Your task to perform on an android device: turn off location history Image 0: 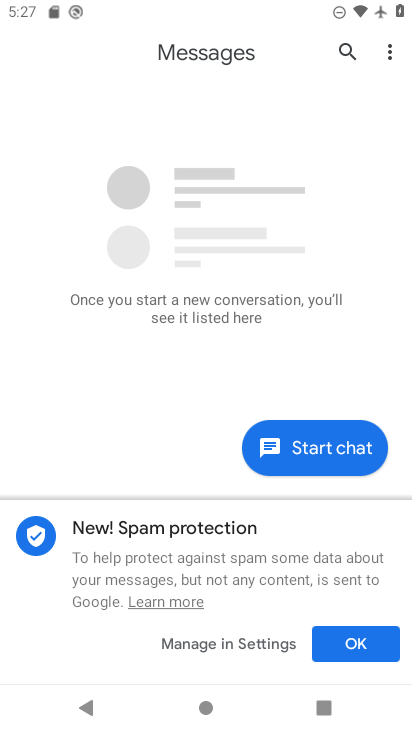
Step 0: press back button
Your task to perform on an android device: turn off location history Image 1: 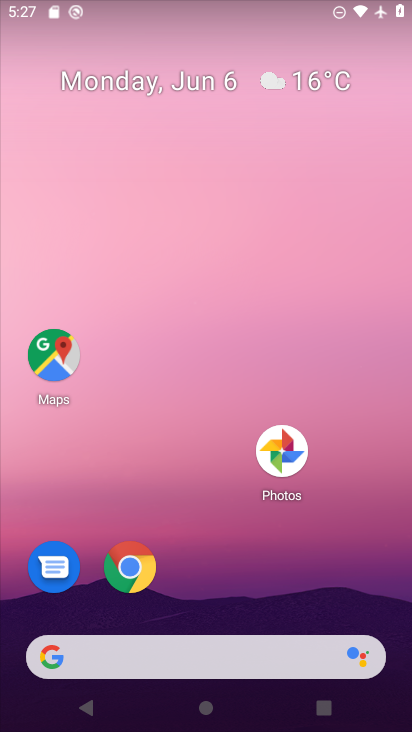
Step 1: drag from (239, 665) to (188, 237)
Your task to perform on an android device: turn off location history Image 2: 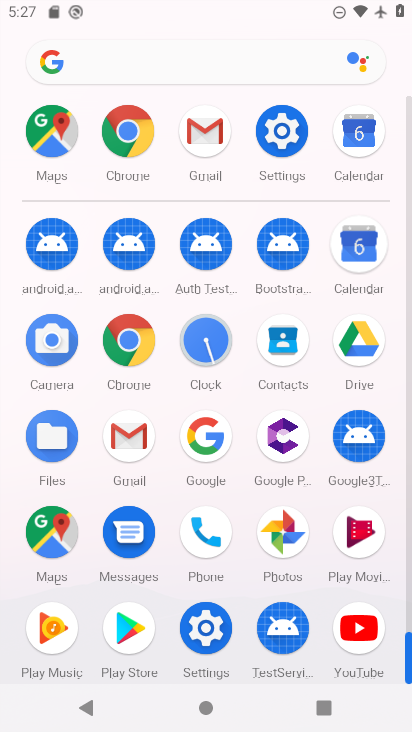
Step 2: click (282, 162)
Your task to perform on an android device: turn off location history Image 3: 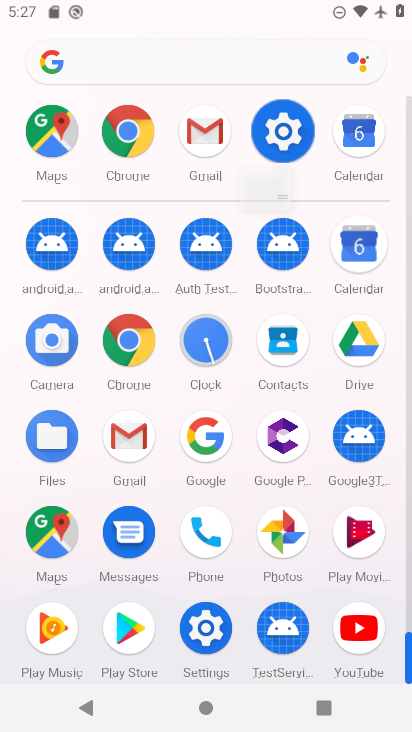
Step 3: click (282, 138)
Your task to perform on an android device: turn off location history Image 4: 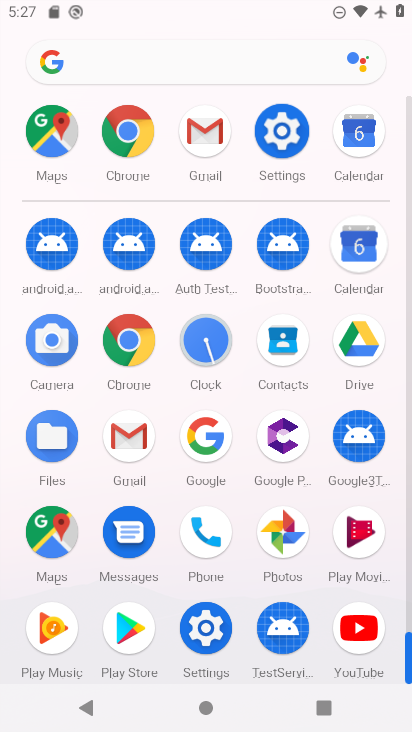
Step 4: click (283, 137)
Your task to perform on an android device: turn off location history Image 5: 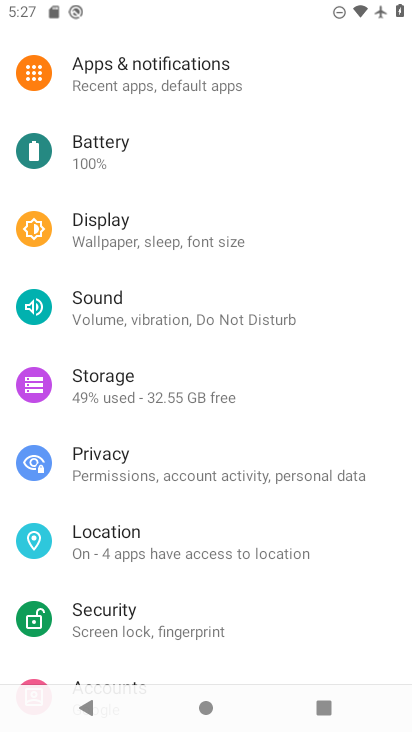
Step 5: click (284, 148)
Your task to perform on an android device: turn off location history Image 6: 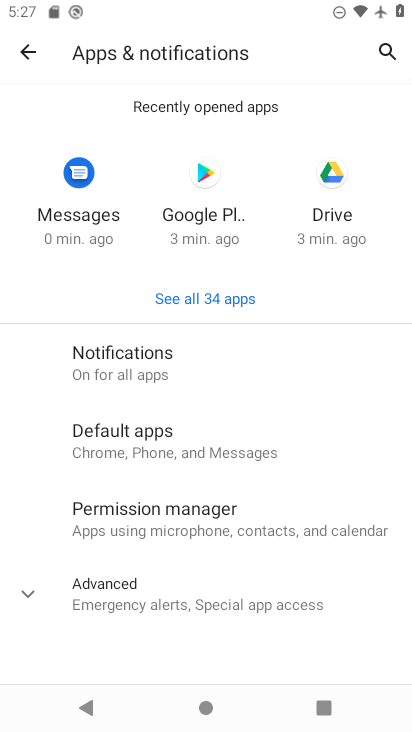
Step 6: click (128, 588)
Your task to perform on an android device: turn off location history Image 7: 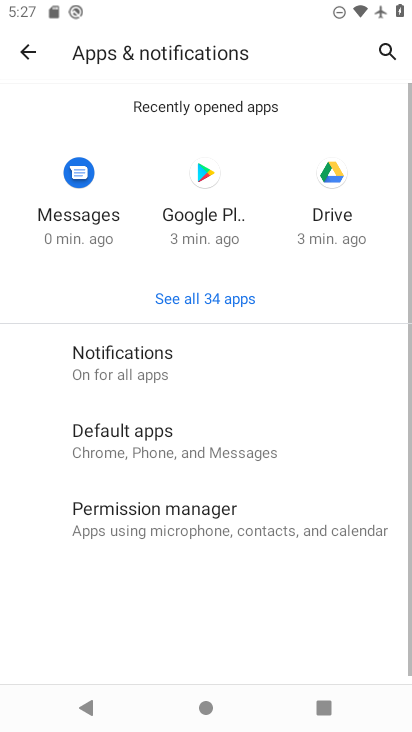
Step 7: click (128, 588)
Your task to perform on an android device: turn off location history Image 8: 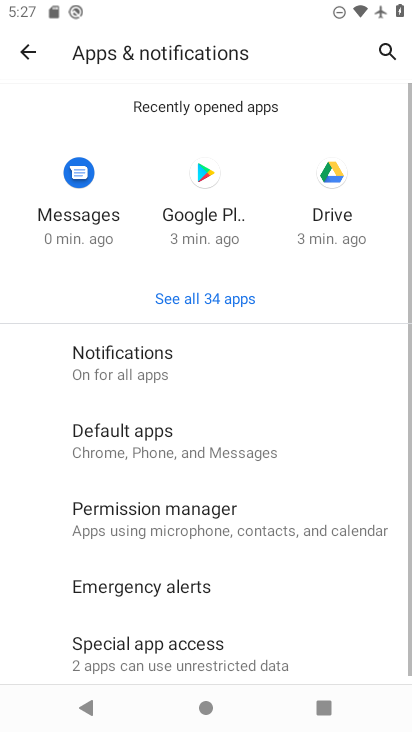
Step 8: click (127, 589)
Your task to perform on an android device: turn off location history Image 9: 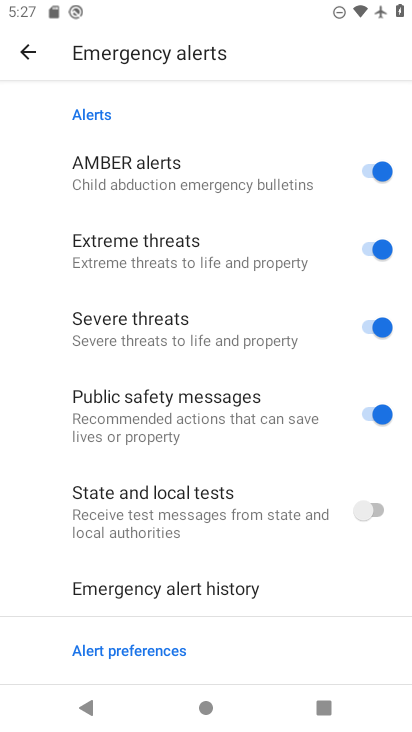
Step 9: click (22, 75)
Your task to perform on an android device: turn off location history Image 10: 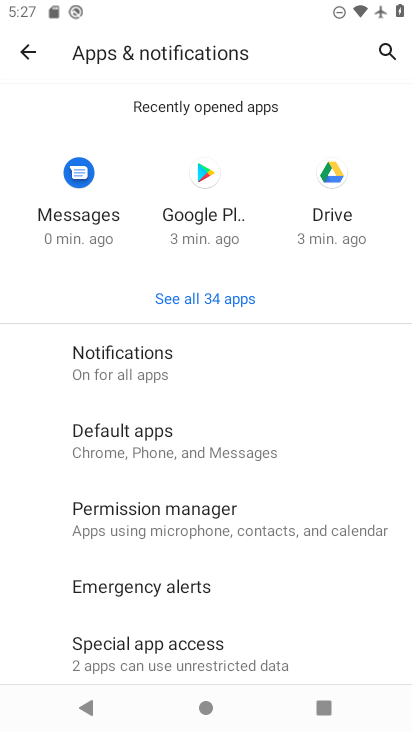
Step 10: drag from (230, 438) to (231, 315)
Your task to perform on an android device: turn off location history Image 11: 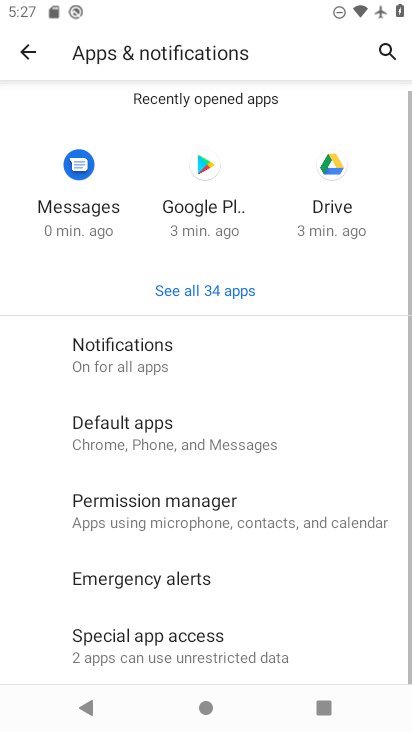
Step 11: drag from (229, 510) to (150, 199)
Your task to perform on an android device: turn off location history Image 12: 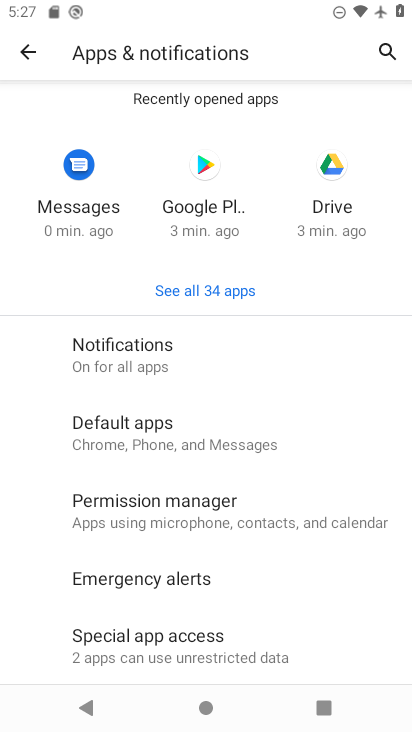
Step 12: drag from (175, 434) to (93, 113)
Your task to perform on an android device: turn off location history Image 13: 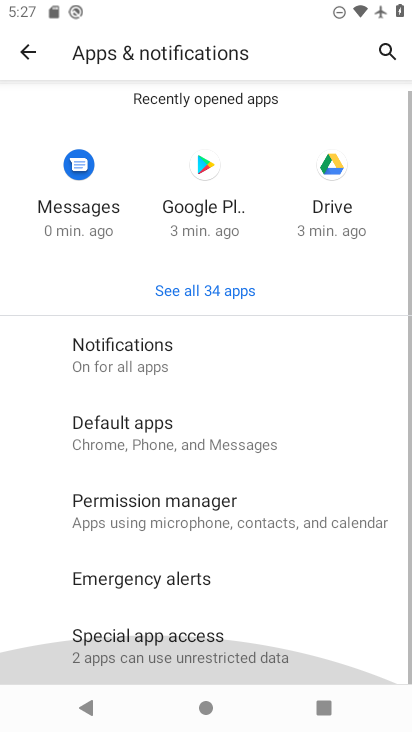
Step 13: drag from (206, 563) to (129, 167)
Your task to perform on an android device: turn off location history Image 14: 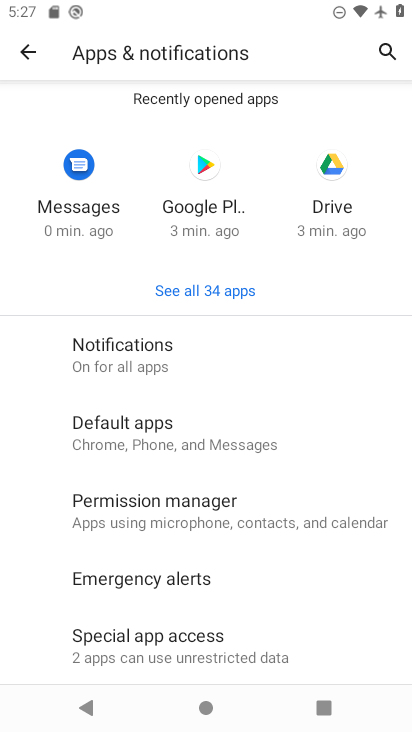
Step 14: drag from (190, 557) to (126, 247)
Your task to perform on an android device: turn off location history Image 15: 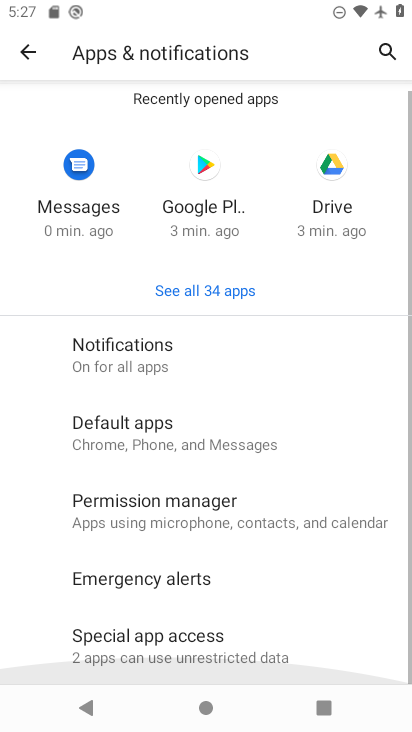
Step 15: click (119, 360)
Your task to perform on an android device: turn off location history Image 16: 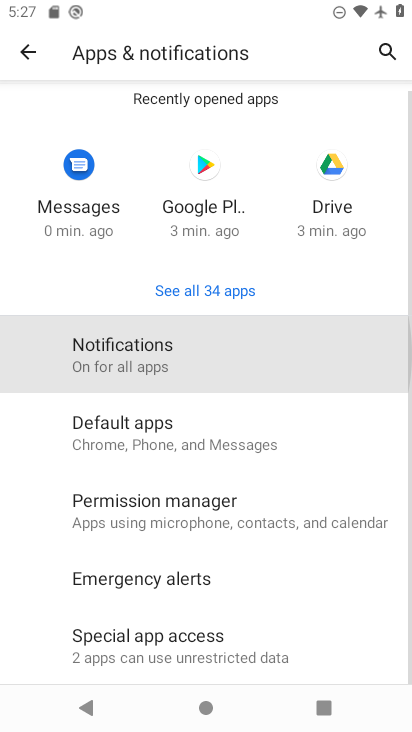
Step 16: click (118, 360)
Your task to perform on an android device: turn off location history Image 17: 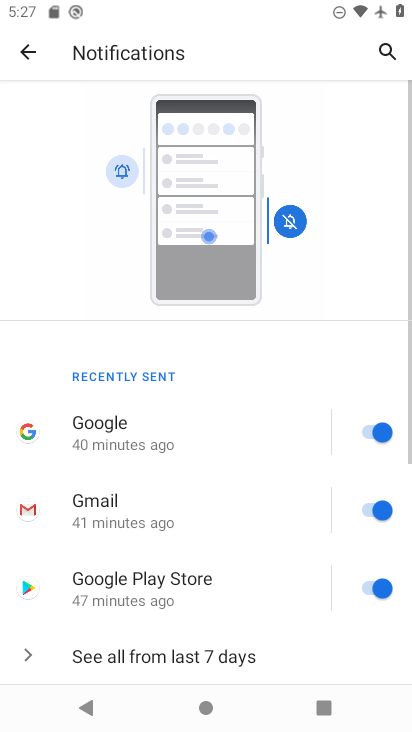
Step 17: drag from (193, 543) to (176, 289)
Your task to perform on an android device: turn off location history Image 18: 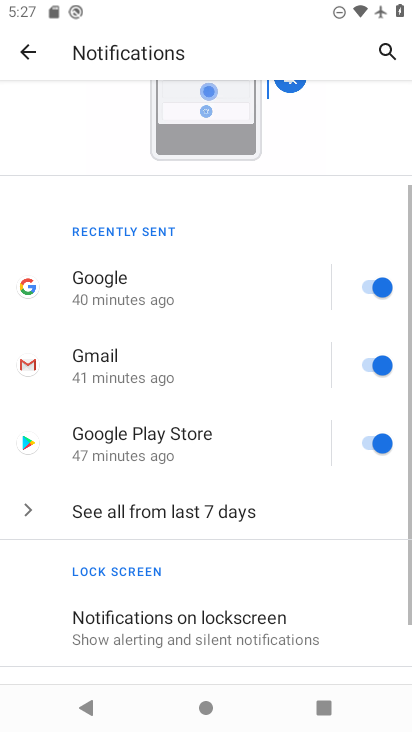
Step 18: drag from (219, 576) to (164, 173)
Your task to perform on an android device: turn off location history Image 19: 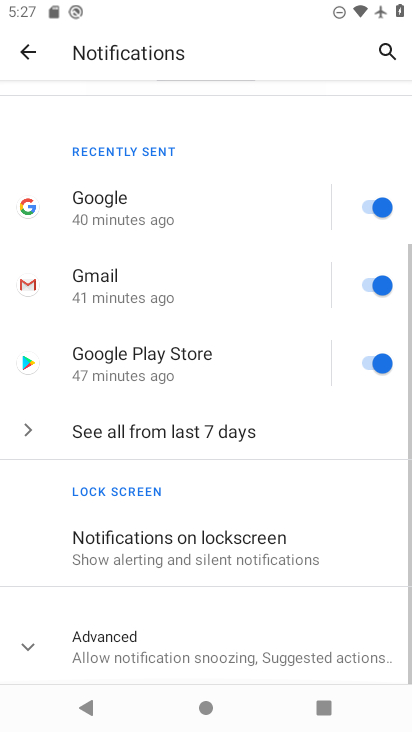
Step 19: drag from (172, 568) to (148, 183)
Your task to perform on an android device: turn off location history Image 20: 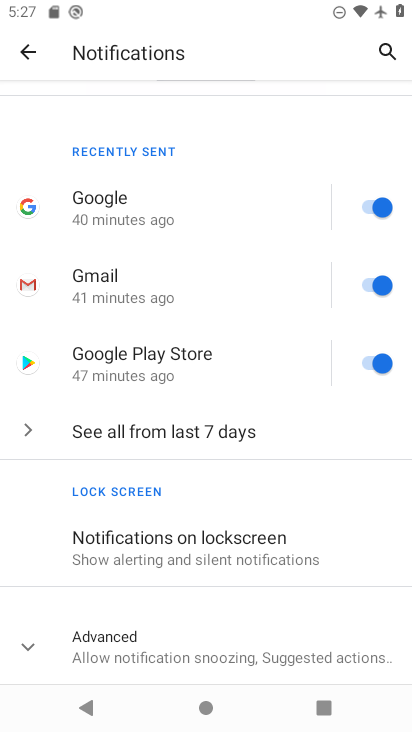
Step 20: click (206, 271)
Your task to perform on an android device: turn off location history Image 21: 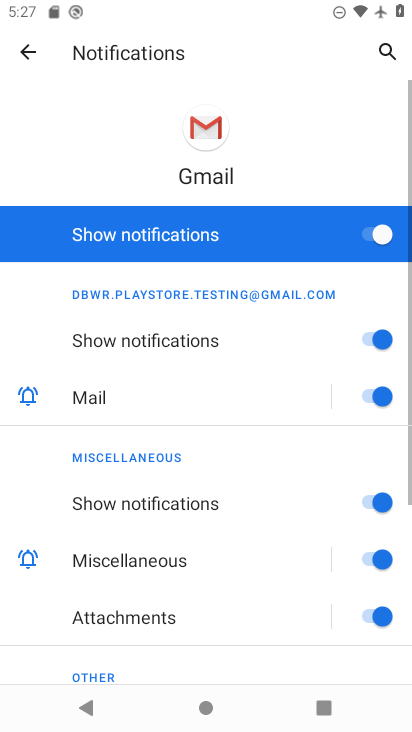
Step 21: click (116, 648)
Your task to perform on an android device: turn off location history Image 22: 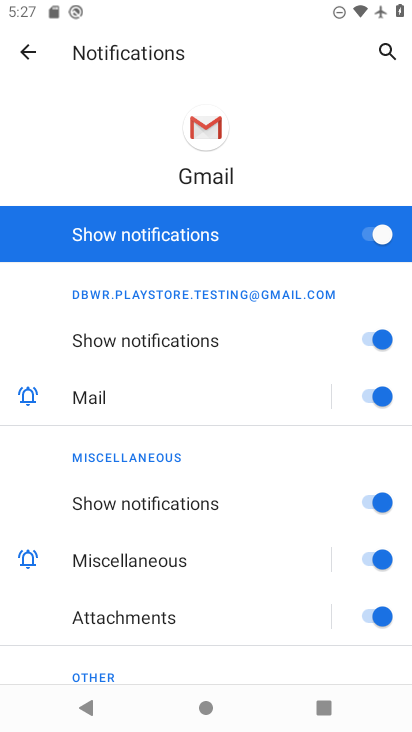
Step 22: drag from (202, 557) to (125, 106)
Your task to perform on an android device: turn off location history Image 23: 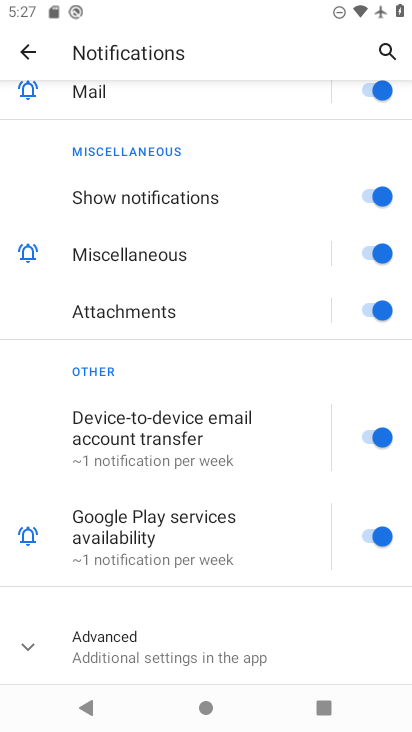
Step 23: click (29, 54)
Your task to perform on an android device: turn off location history Image 24: 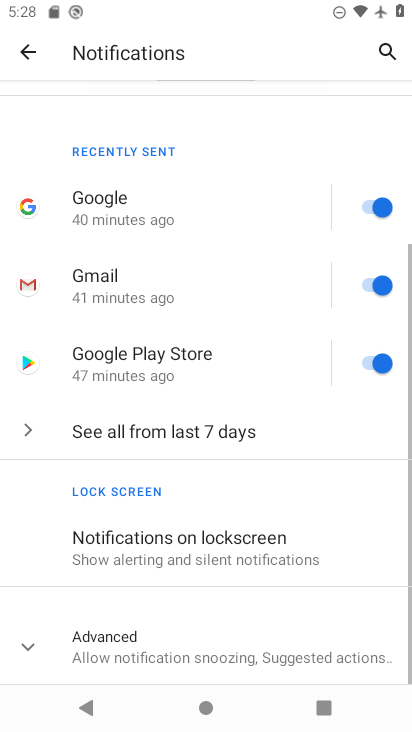
Step 24: drag from (178, 550) to (158, 17)
Your task to perform on an android device: turn off location history Image 25: 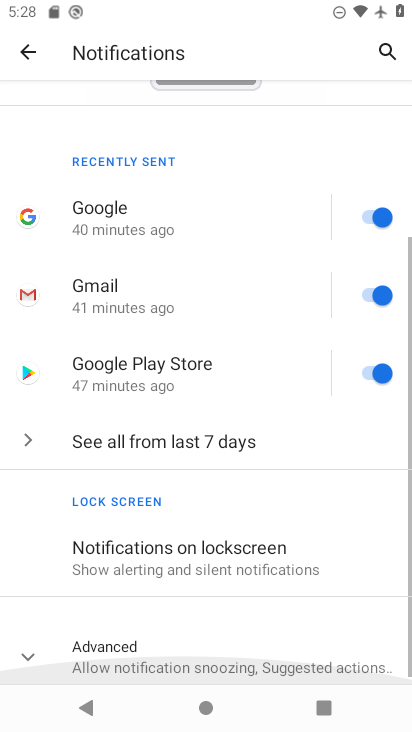
Step 25: drag from (179, 637) to (195, 201)
Your task to perform on an android device: turn off location history Image 26: 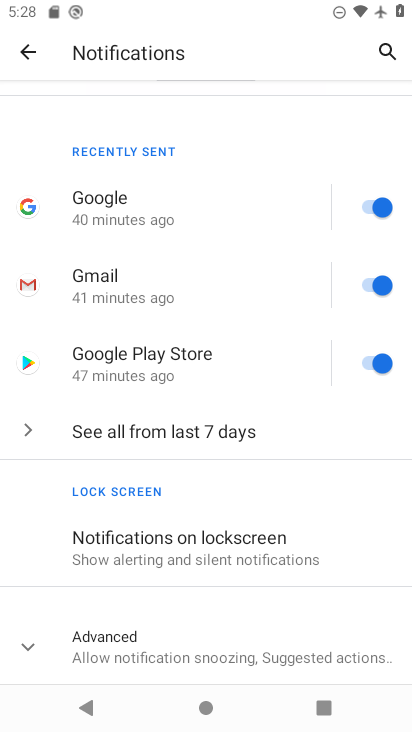
Step 26: click (132, 651)
Your task to perform on an android device: turn off location history Image 27: 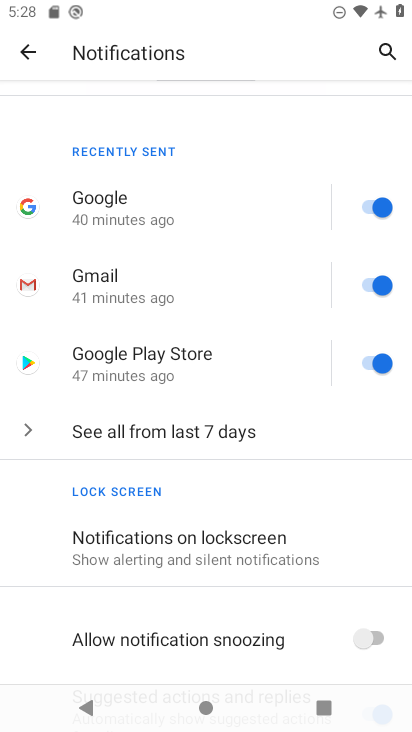
Step 27: drag from (250, 606) to (167, 185)
Your task to perform on an android device: turn off location history Image 28: 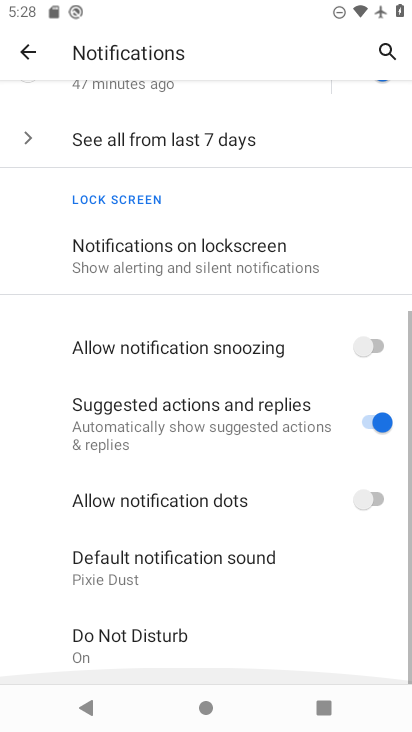
Step 28: drag from (192, 432) to (210, 230)
Your task to perform on an android device: turn off location history Image 29: 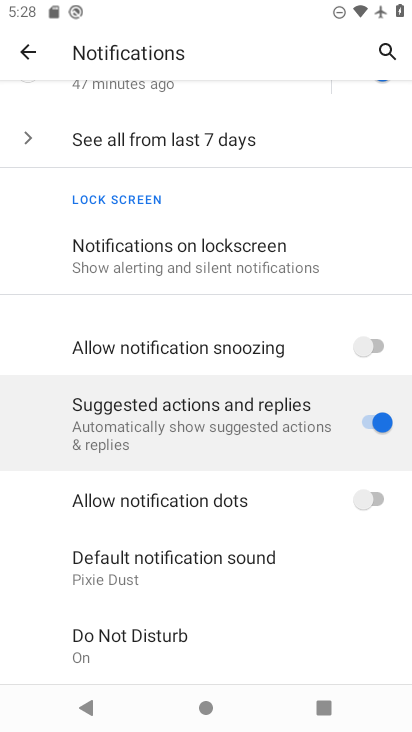
Step 29: drag from (215, 507) to (189, 271)
Your task to perform on an android device: turn off location history Image 30: 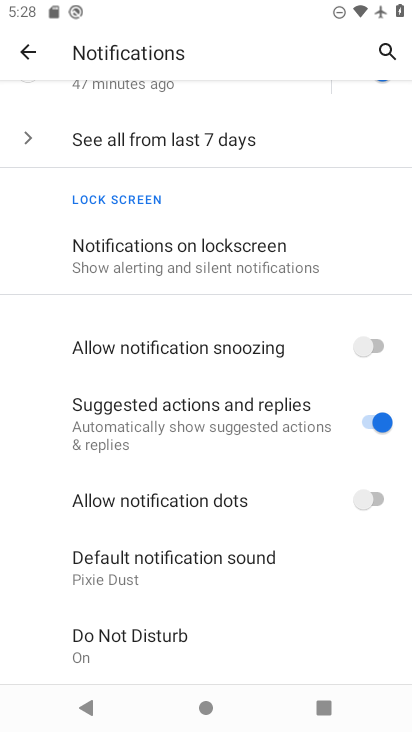
Step 30: drag from (112, 159) to (164, 557)
Your task to perform on an android device: turn off location history Image 31: 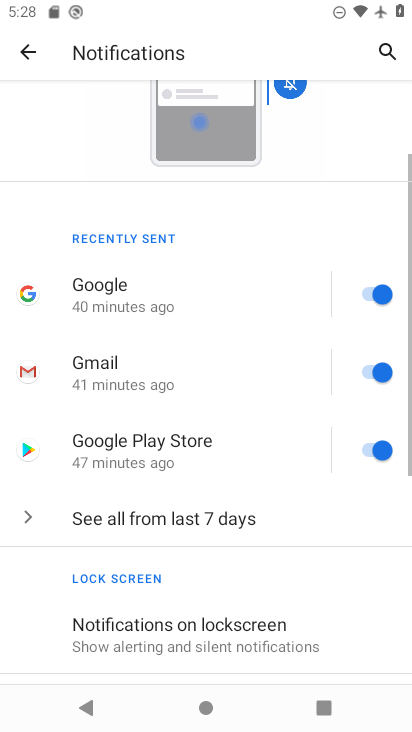
Step 31: drag from (124, 254) to (158, 722)
Your task to perform on an android device: turn off location history Image 32: 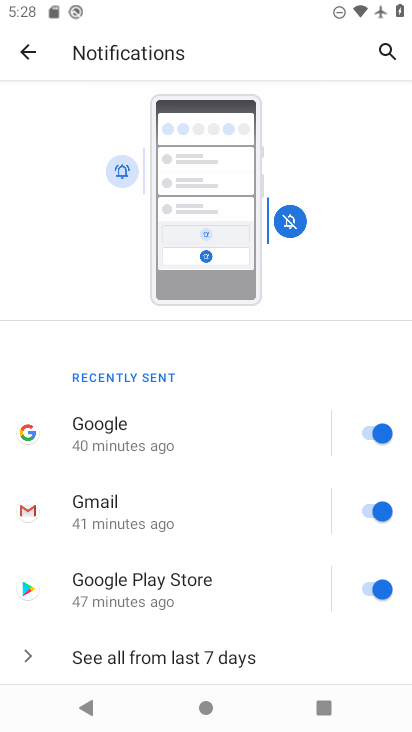
Step 32: click (25, 48)
Your task to perform on an android device: turn off location history Image 33: 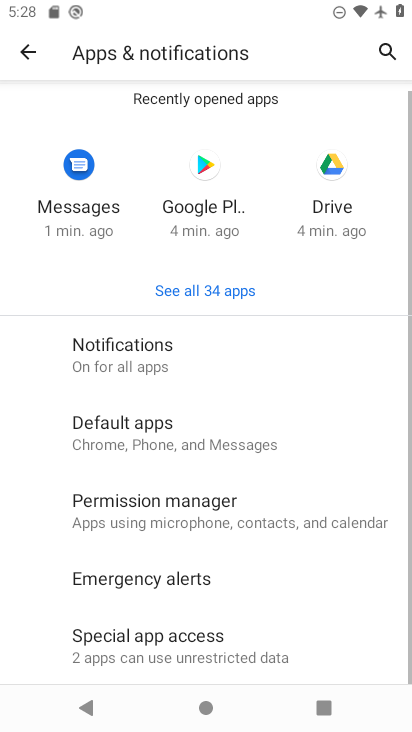
Step 33: click (116, 352)
Your task to perform on an android device: turn off location history Image 34: 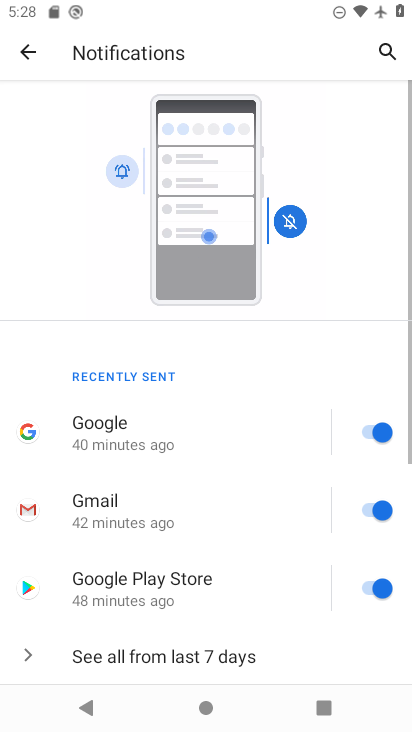
Step 34: click (20, 52)
Your task to perform on an android device: turn off location history Image 35: 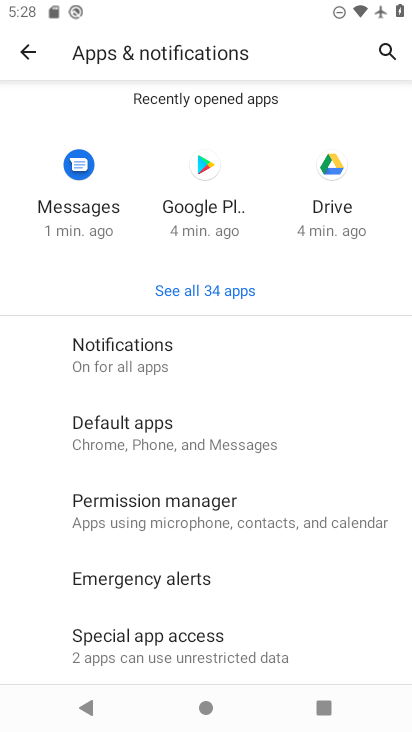
Step 35: click (21, 47)
Your task to perform on an android device: turn off location history Image 36: 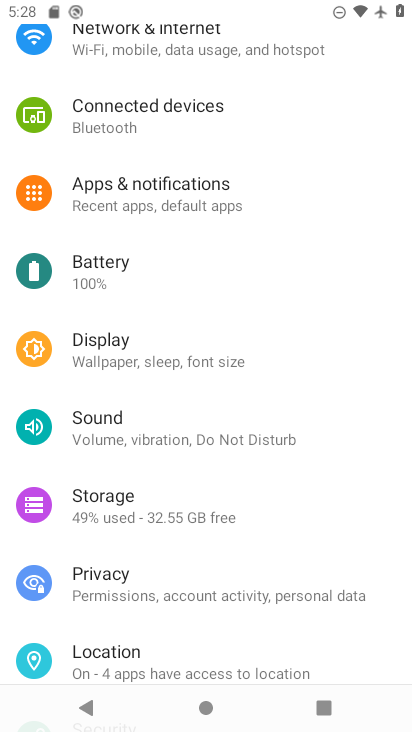
Step 36: click (117, 657)
Your task to perform on an android device: turn off location history Image 37: 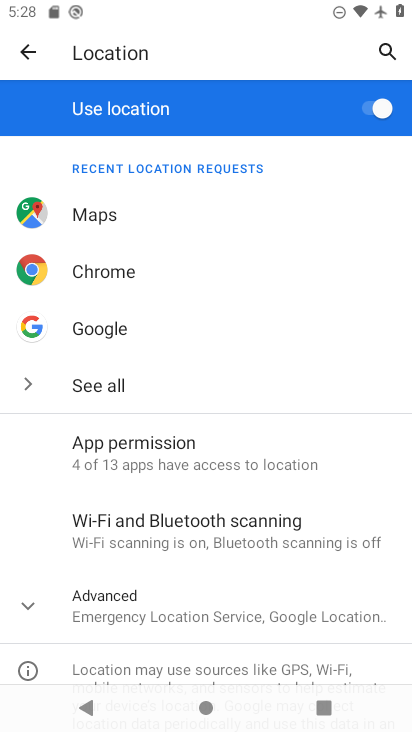
Step 37: drag from (297, 640) to (280, 273)
Your task to perform on an android device: turn off location history Image 38: 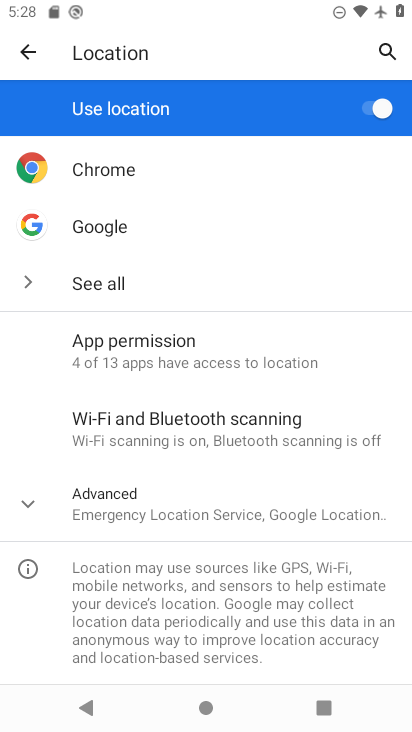
Step 38: click (115, 519)
Your task to perform on an android device: turn off location history Image 39: 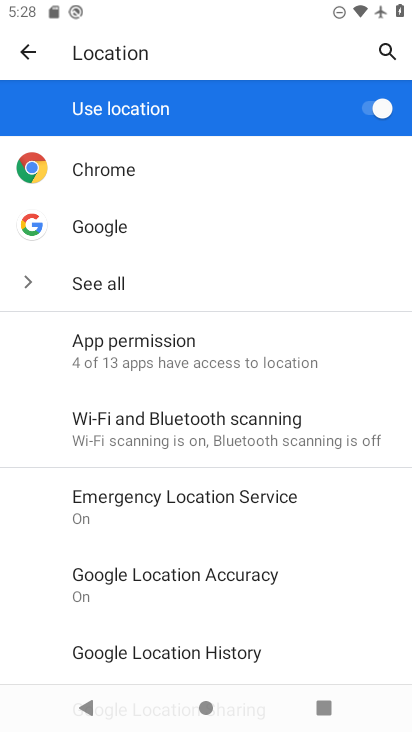
Step 39: click (189, 610)
Your task to perform on an android device: turn off location history Image 40: 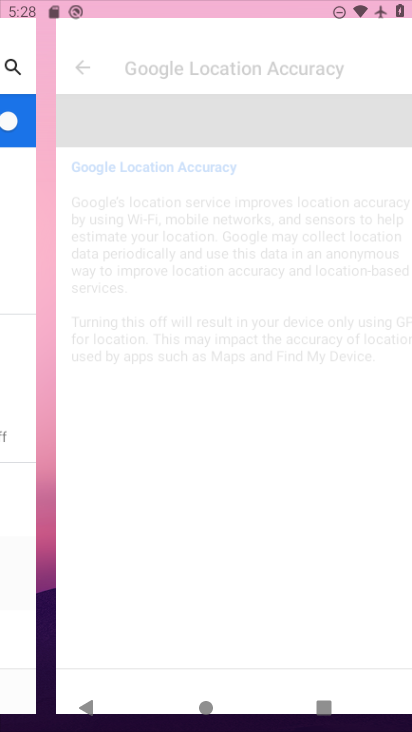
Step 40: click (160, 650)
Your task to perform on an android device: turn off location history Image 41: 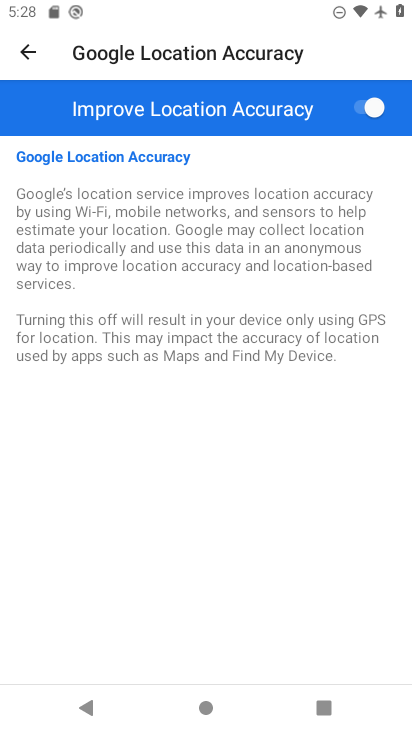
Step 41: click (160, 650)
Your task to perform on an android device: turn off location history Image 42: 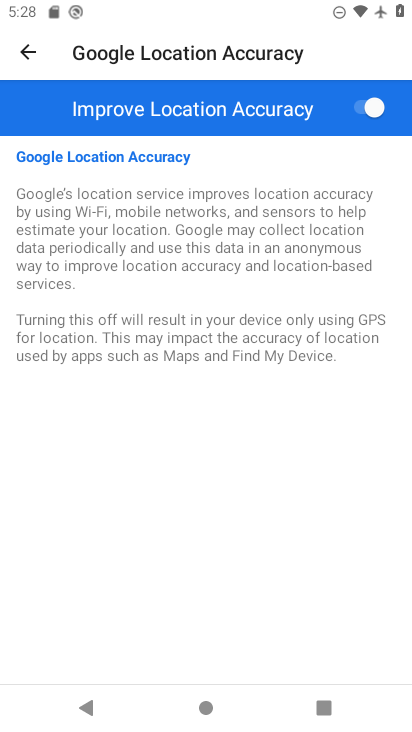
Step 42: click (20, 54)
Your task to perform on an android device: turn off location history Image 43: 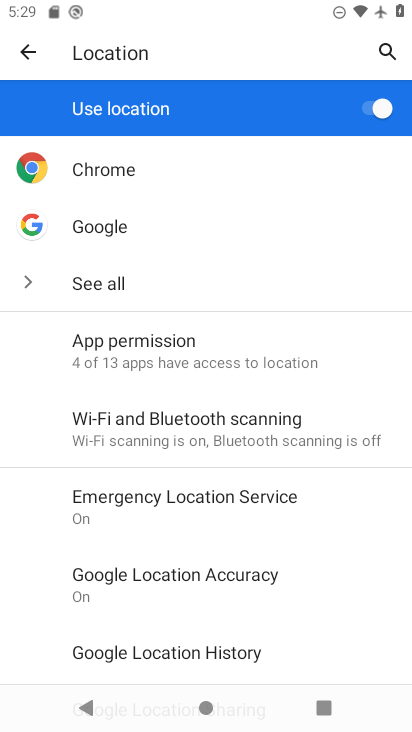
Step 43: drag from (218, 475) to (226, 183)
Your task to perform on an android device: turn off location history Image 44: 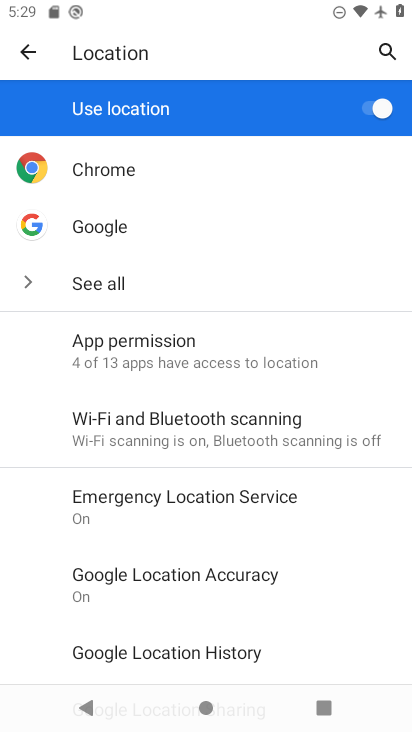
Step 44: click (160, 652)
Your task to perform on an android device: turn off location history Image 45: 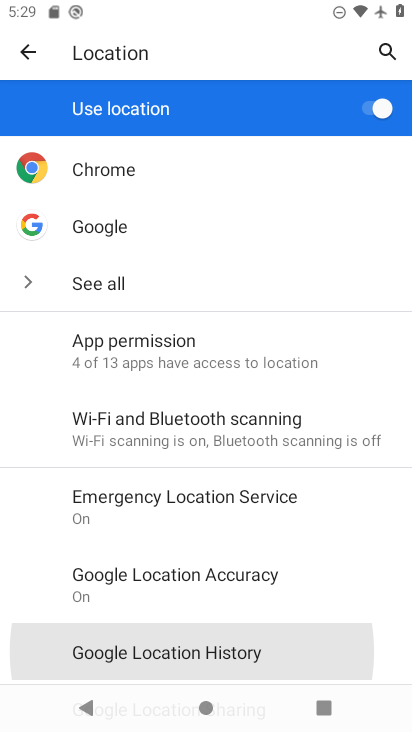
Step 45: click (159, 653)
Your task to perform on an android device: turn off location history Image 46: 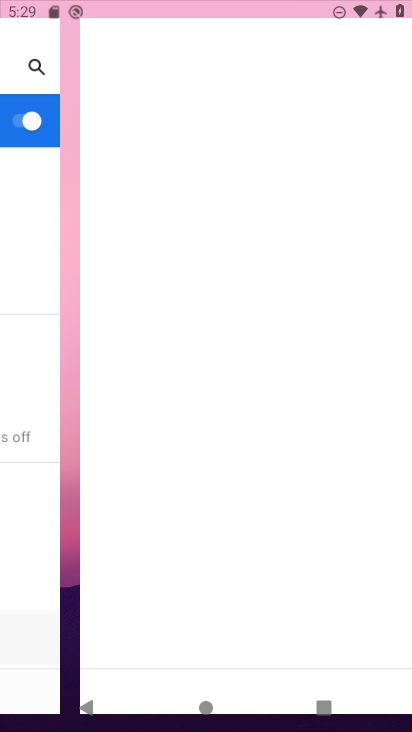
Step 46: click (159, 653)
Your task to perform on an android device: turn off location history Image 47: 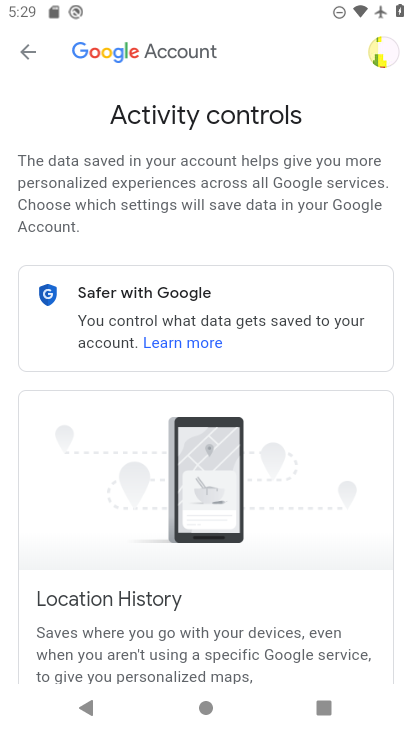
Step 47: drag from (272, 436) to (255, 201)
Your task to perform on an android device: turn off location history Image 48: 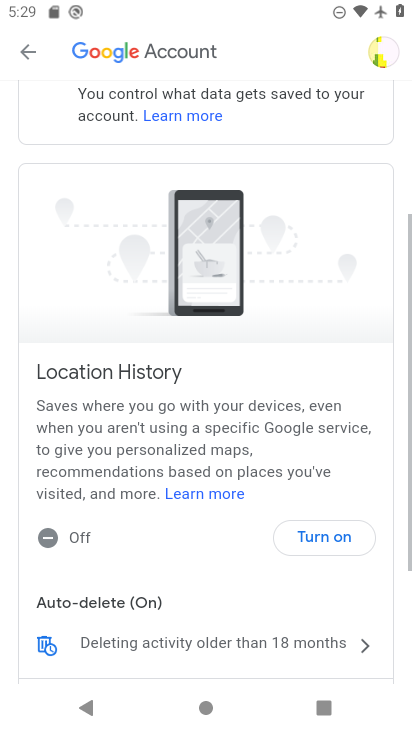
Step 48: drag from (289, 425) to (237, 103)
Your task to perform on an android device: turn off location history Image 49: 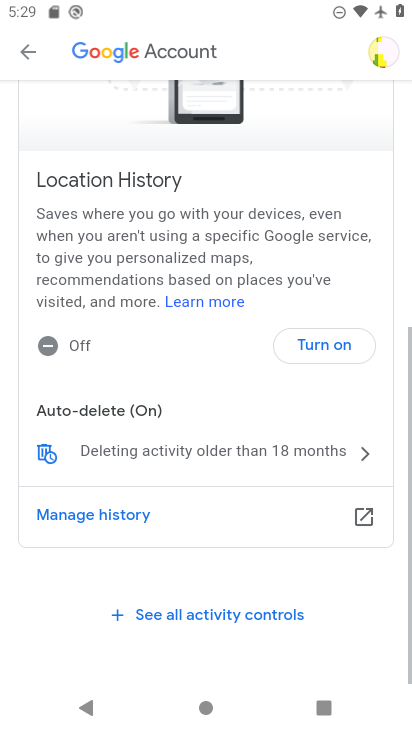
Step 49: drag from (291, 409) to (250, 122)
Your task to perform on an android device: turn off location history Image 50: 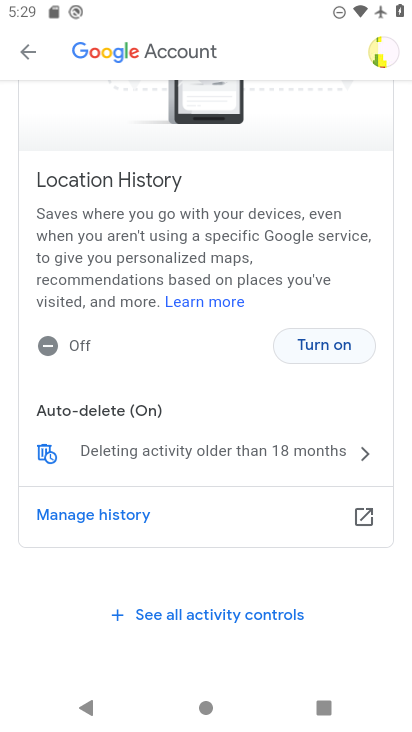
Step 50: click (327, 345)
Your task to perform on an android device: turn off location history Image 51: 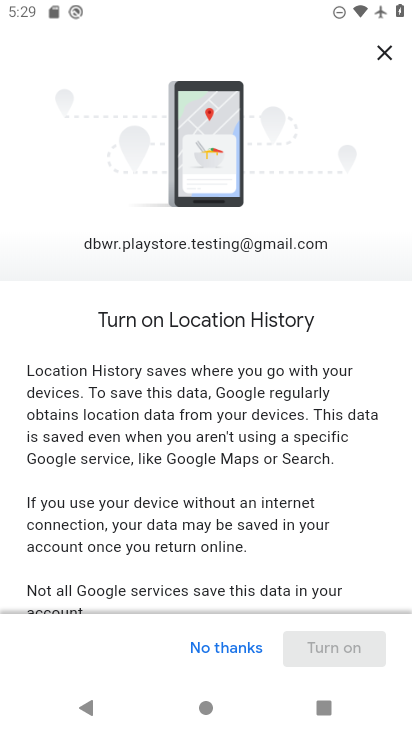
Step 51: task complete